Your task to perform on an android device: Do I have any events this weekend? Image 0: 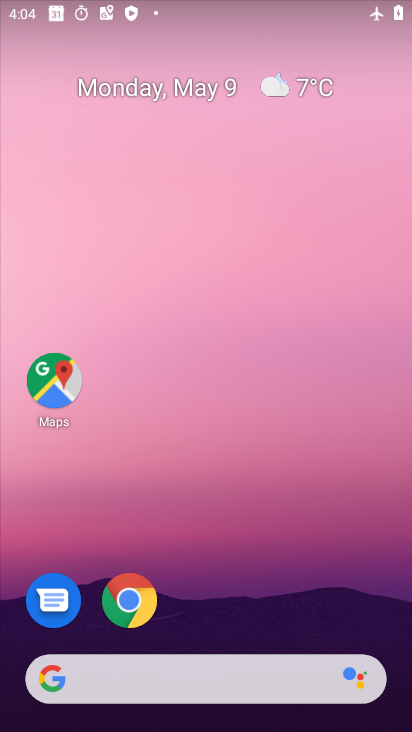
Step 0: drag from (256, 568) to (216, 190)
Your task to perform on an android device: Do I have any events this weekend? Image 1: 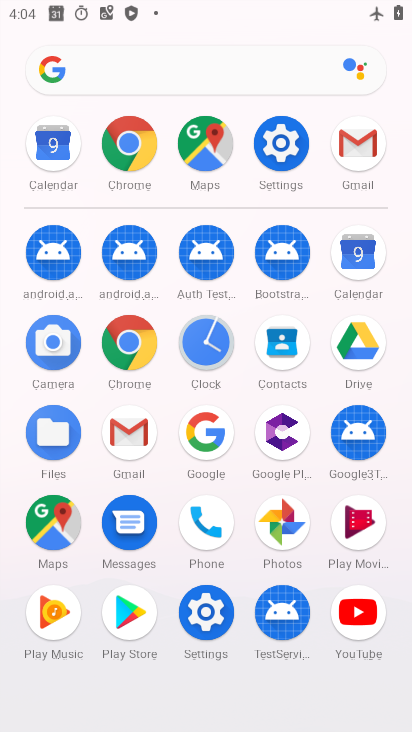
Step 1: click (360, 240)
Your task to perform on an android device: Do I have any events this weekend? Image 2: 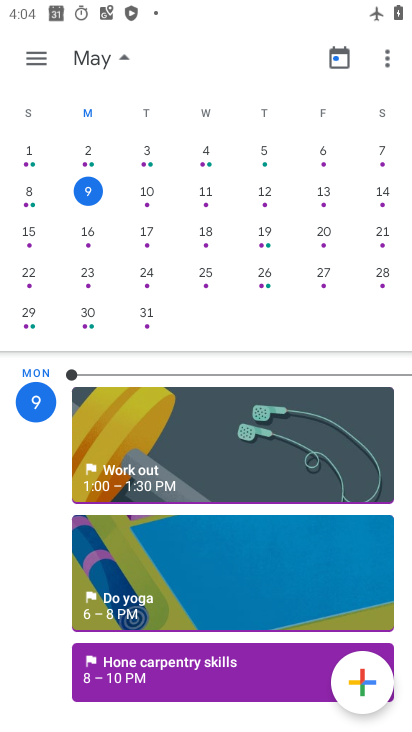
Step 2: click (41, 53)
Your task to perform on an android device: Do I have any events this weekend? Image 3: 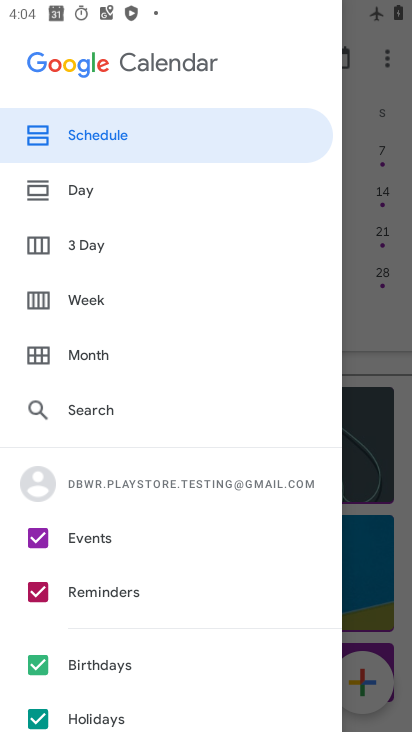
Step 3: click (103, 307)
Your task to perform on an android device: Do I have any events this weekend? Image 4: 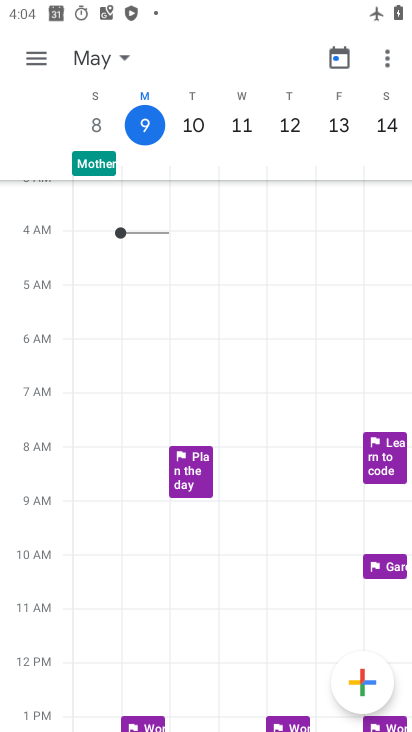
Step 4: task complete